Your task to perform on an android device: install app "Mercado Libre" Image 0: 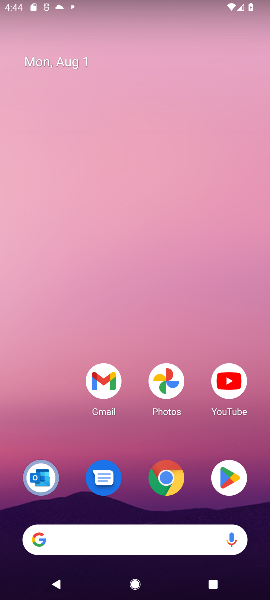
Step 0: press home button
Your task to perform on an android device: install app "Mercado Libre" Image 1: 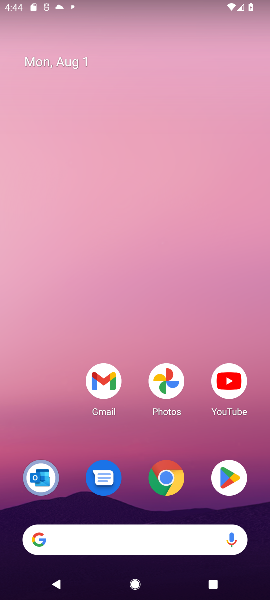
Step 1: click (219, 484)
Your task to perform on an android device: install app "Mercado Libre" Image 2: 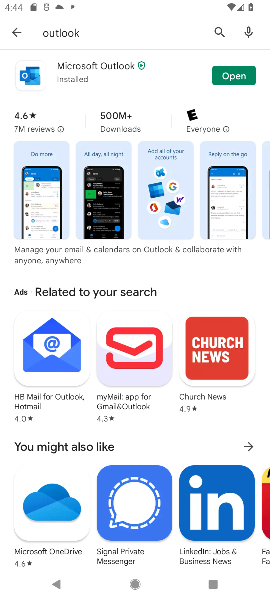
Step 2: click (222, 28)
Your task to perform on an android device: install app "Mercado Libre" Image 3: 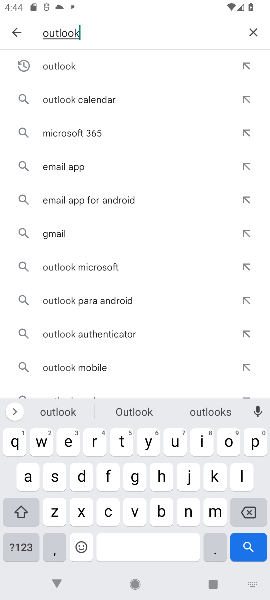
Step 3: click (251, 32)
Your task to perform on an android device: install app "Mercado Libre" Image 4: 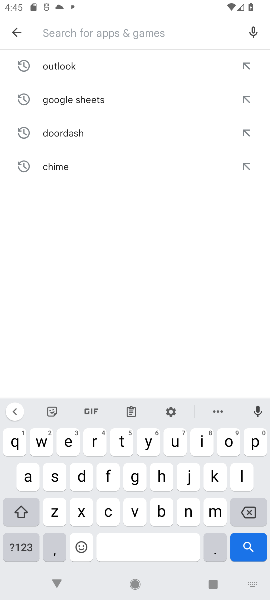
Step 4: type "mercado "
Your task to perform on an android device: install app "Mercado Libre" Image 5: 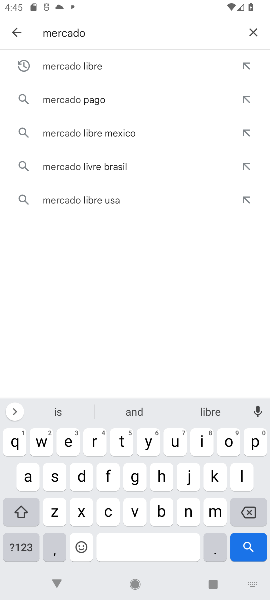
Step 5: click (100, 70)
Your task to perform on an android device: install app "Mercado Libre" Image 6: 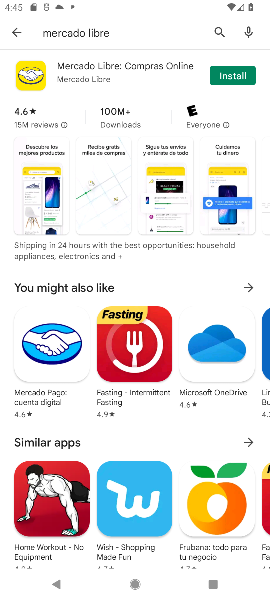
Step 6: click (241, 85)
Your task to perform on an android device: install app "Mercado Libre" Image 7: 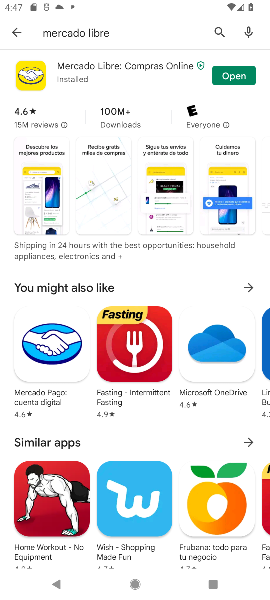
Step 7: task complete